Your task to perform on an android device: toggle improve location accuracy Image 0: 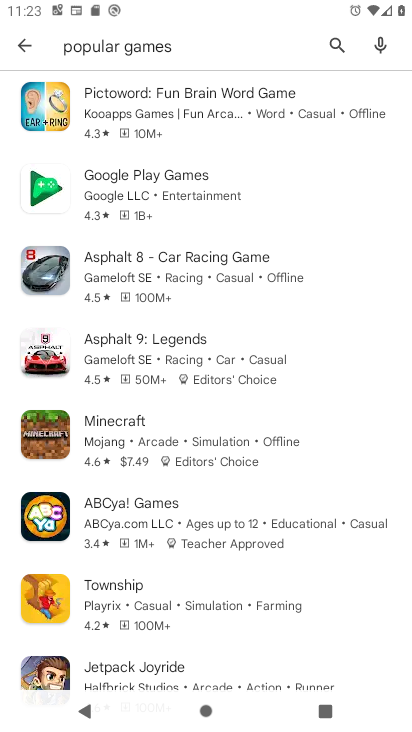
Step 0: press home button
Your task to perform on an android device: toggle improve location accuracy Image 1: 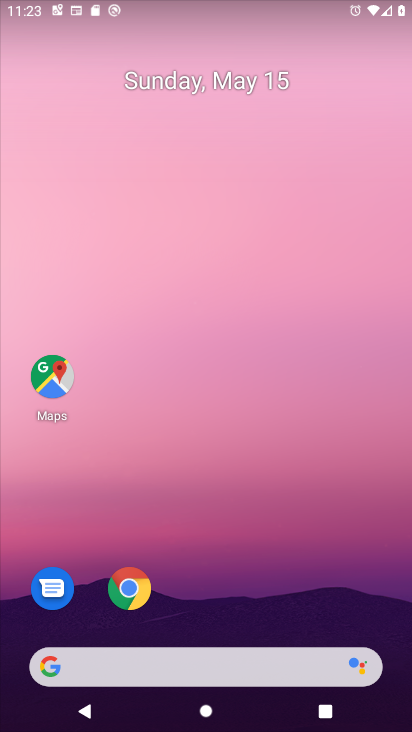
Step 1: drag from (229, 573) to (272, 93)
Your task to perform on an android device: toggle improve location accuracy Image 2: 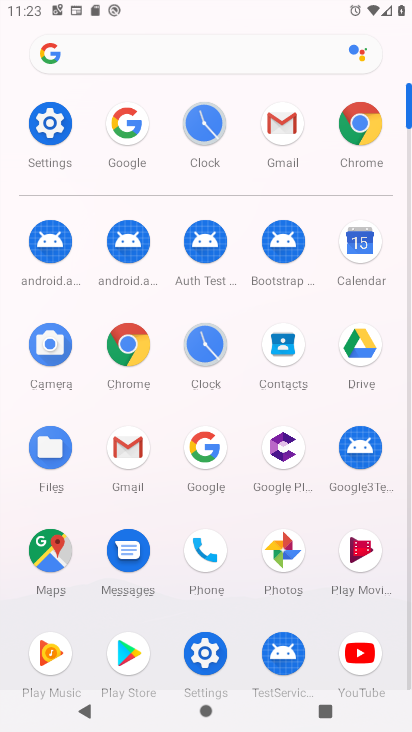
Step 2: click (215, 664)
Your task to perform on an android device: toggle improve location accuracy Image 3: 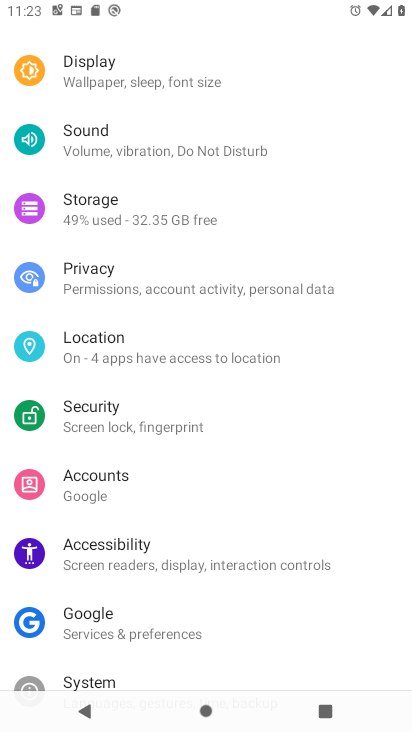
Step 3: click (120, 347)
Your task to perform on an android device: toggle improve location accuracy Image 4: 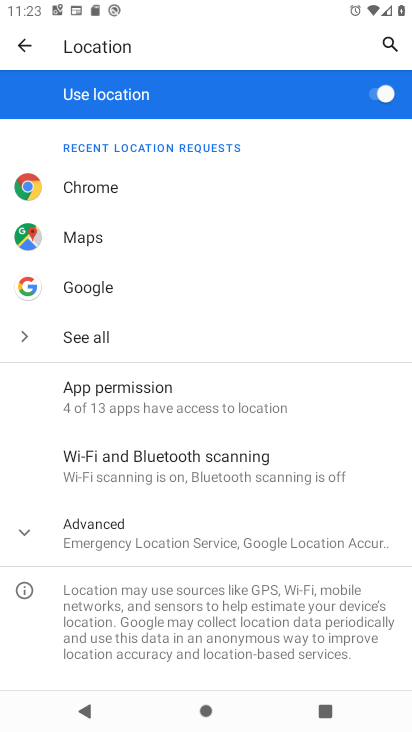
Step 4: click (176, 530)
Your task to perform on an android device: toggle improve location accuracy Image 5: 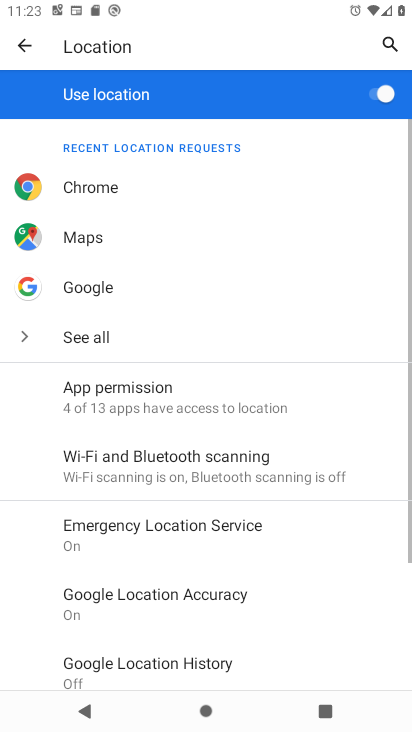
Step 5: drag from (201, 656) to (234, 324)
Your task to perform on an android device: toggle improve location accuracy Image 6: 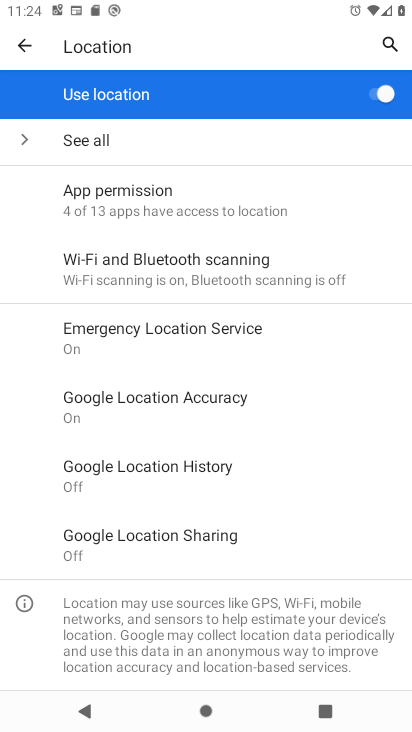
Step 6: click (183, 398)
Your task to perform on an android device: toggle improve location accuracy Image 7: 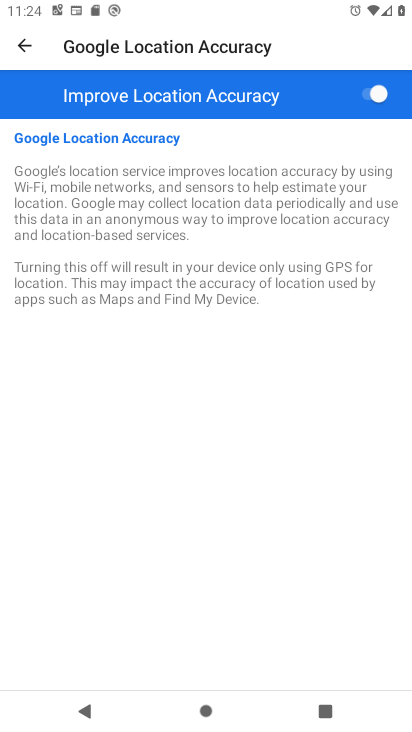
Step 7: click (368, 91)
Your task to perform on an android device: toggle improve location accuracy Image 8: 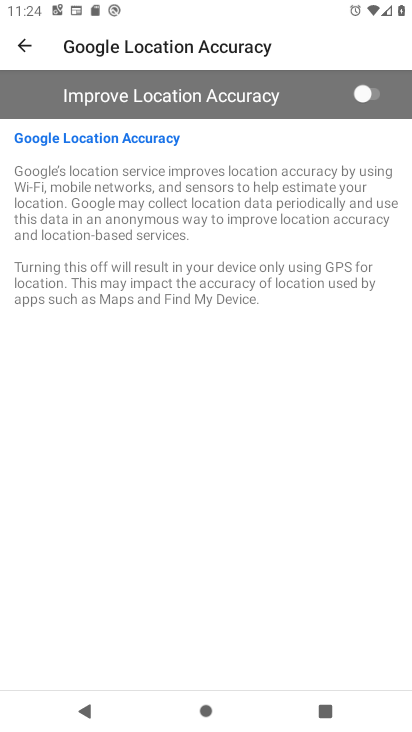
Step 8: task complete